Your task to perform on an android device: Is it going to rain this weekend? Image 0: 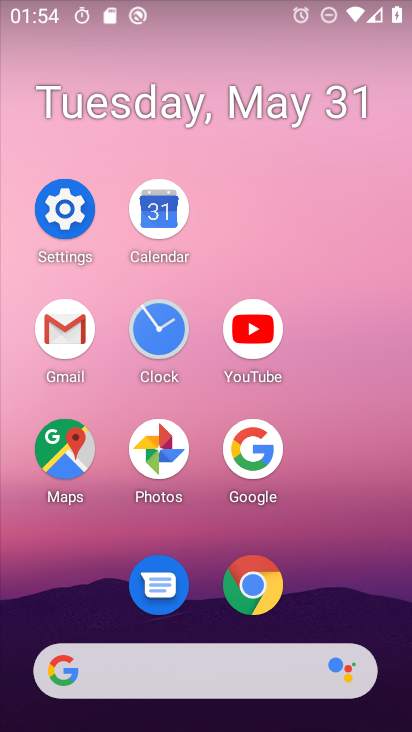
Step 0: click (273, 453)
Your task to perform on an android device: Is it going to rain this weekend? Image 1: 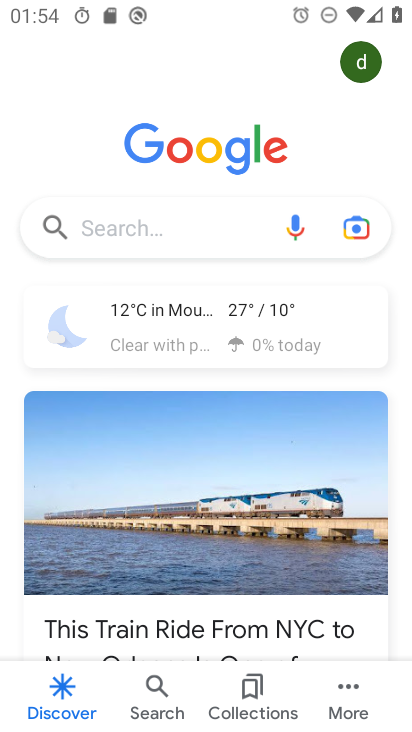
Step 1: click (182, 315)
Your task to perform on an android device: Is it going to rain this weekend? Image 2: 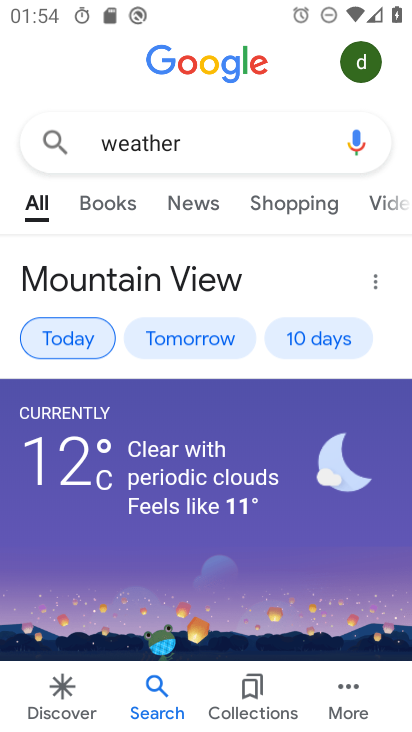
Step 2: click (329, 344)
Your task to perform on an android device: Is it going to rain this weekend? Image 3: 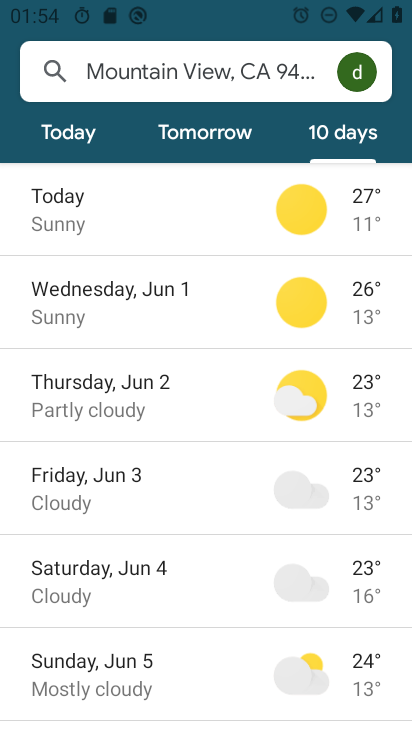
Step 3: click (115, 604)
Your task to perform on an android device: Is it going to rain this weekend? Image 4: 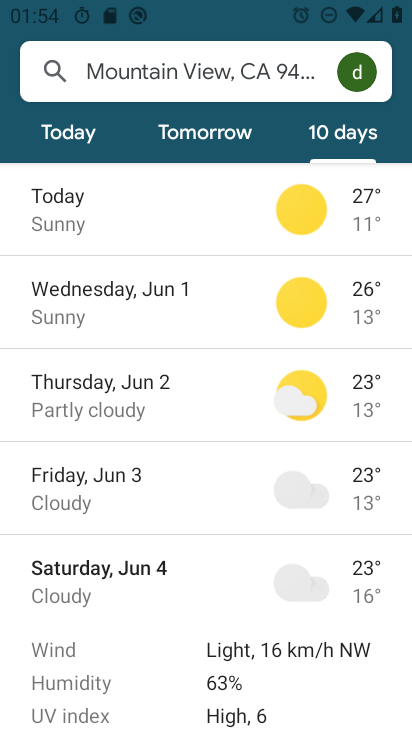
Step 4: task complete